Your task to perform on an android device: turn notification dots on Image 0: 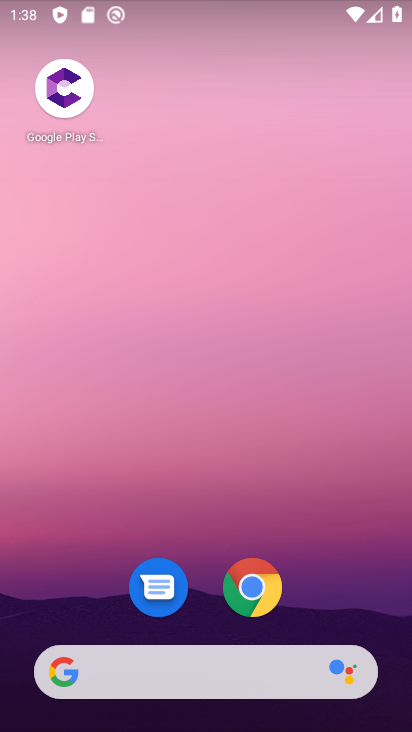
Step 0: drag from (332, 604) to (348, 1)
Your task to perform on an android device: turn notification dots on Image 1: 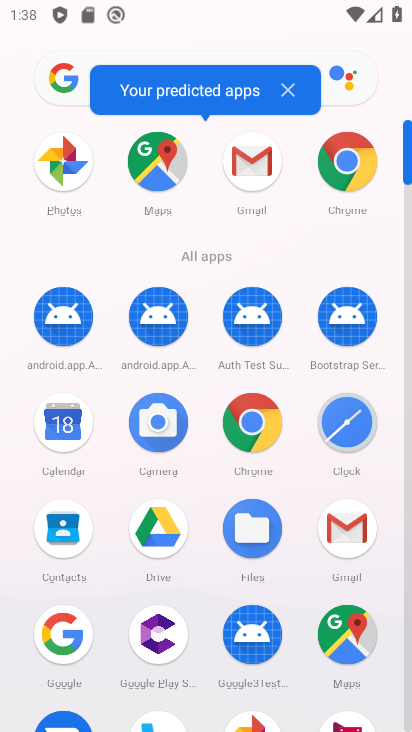
Step 1: click (409, 500)
Your task to perform on an android device: turn notification dots on Image 2: 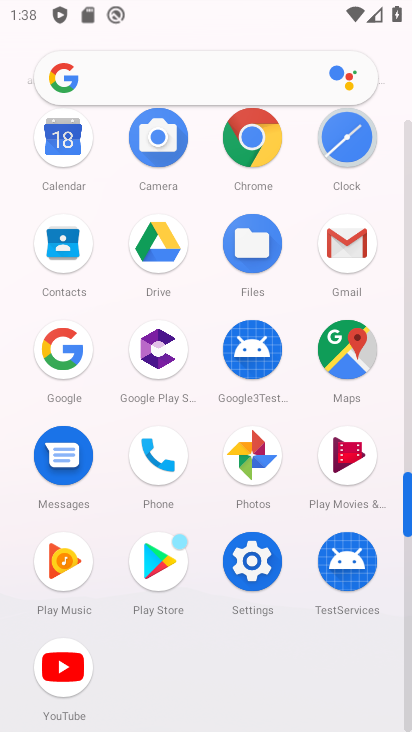
Step 2: click (248, 567)
Your task to perform on an android device: turn notification dots on Image 3: 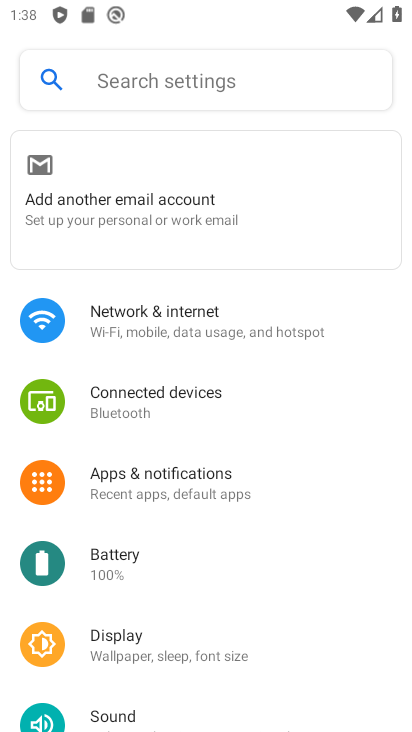
Step 3: click (182, 478)
Your task to perform on an android device: turn notification dots on Image 4: 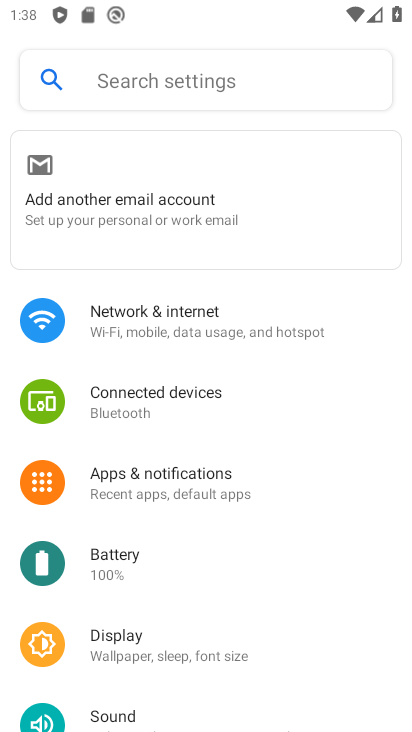
Step 4: click (145, 488)
Your task to perform on an android device: turn notification dots on Image 5: 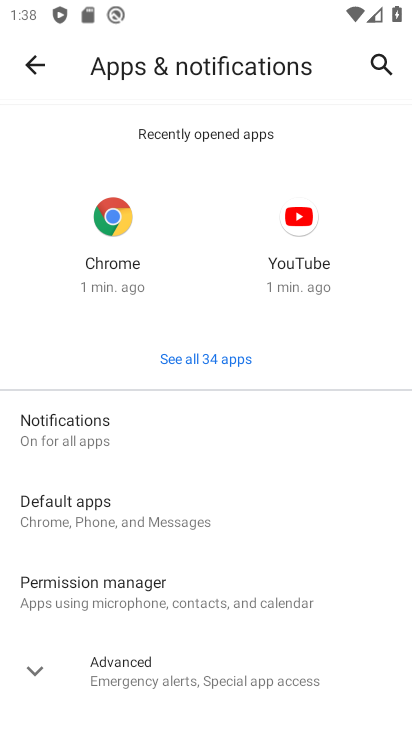
Step 5: click (46, 433)
Your task to perform on an android device: turn notification dots on Image 6: 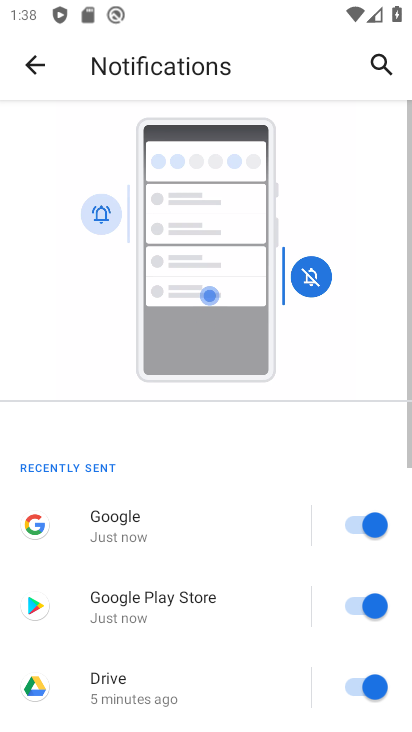
Step 6: drag from (157, 558) to (135, 109)
Your task to perform on an android device: turn notification dots on Image 7: 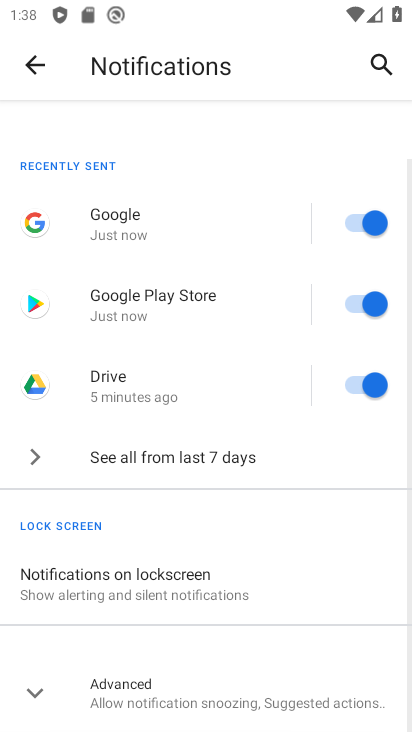
Step 7: drag from (136, 586) to (146, 191)
Your task to perform on an android device: turn notification dots on Image 8: 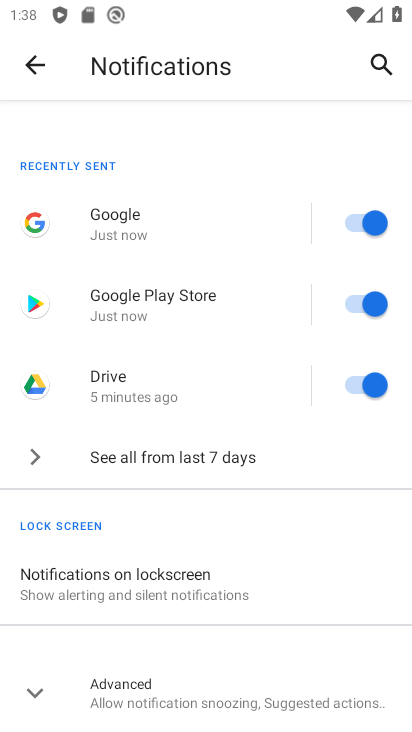
Step 8: click (34, 706)
Your task to perform on an android device: turn notification dots on Image 9: 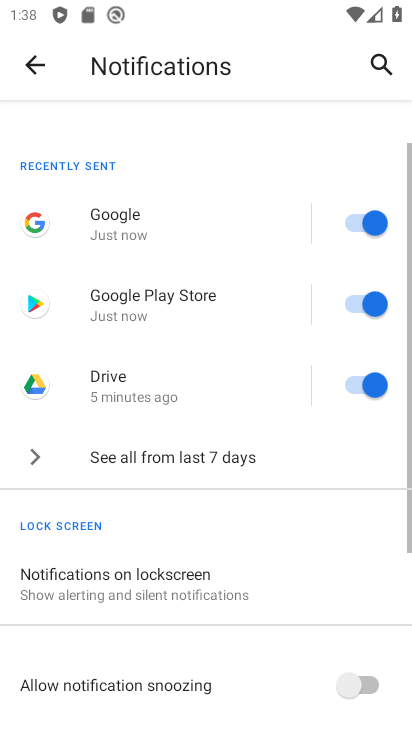
Step 9: task complete